Your task to perform on an android device: change text size in settings app Image 0: 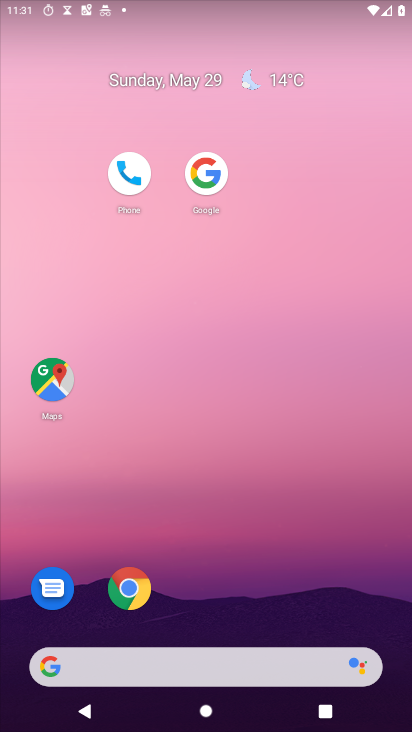
Step 0: drag from (259, 711) to (182, 152)
Your task to perform on an android device: change text size in settings app Image 1: 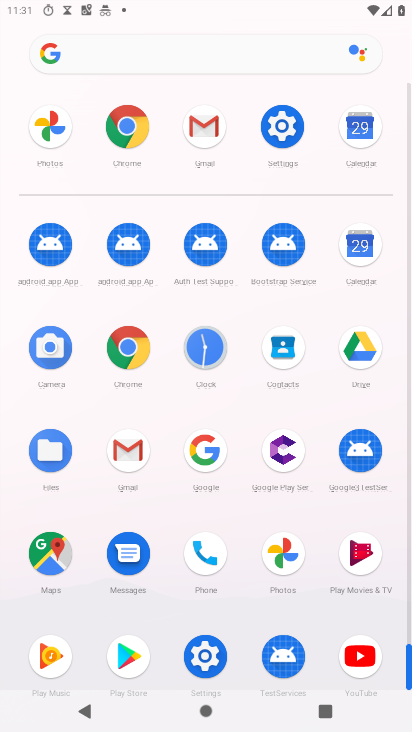
Step 1: click (270, 128)
Your task to perform on an android device: change text size in settings app Image 2: 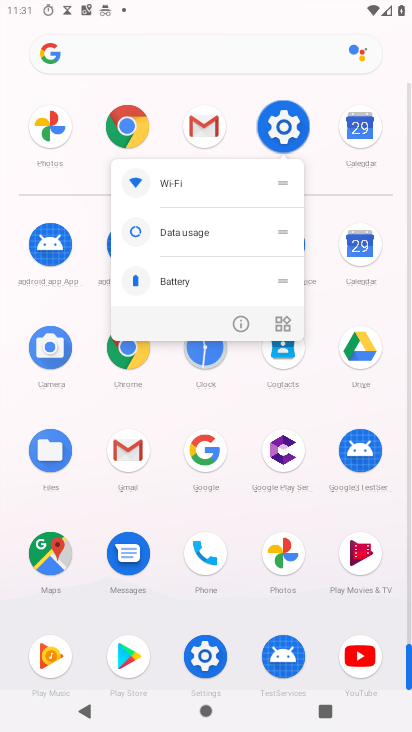
Step 2: click (270, 128)
Your task to perform on an android device: change text size in settings app Image 3: 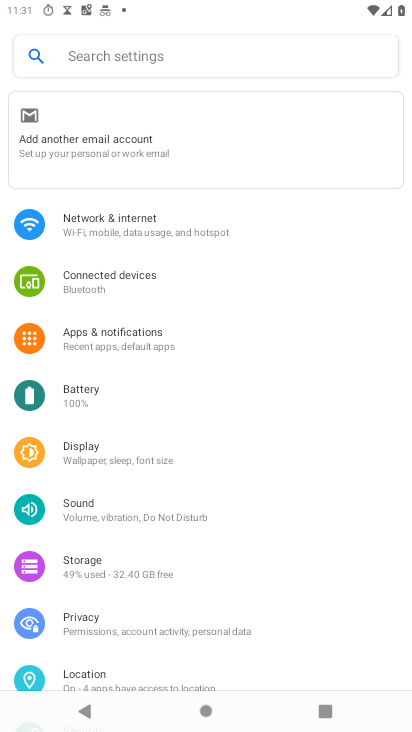
Step 3: click (86, 452)
Your task to perform on an android device: change text size in settings app Image 4: 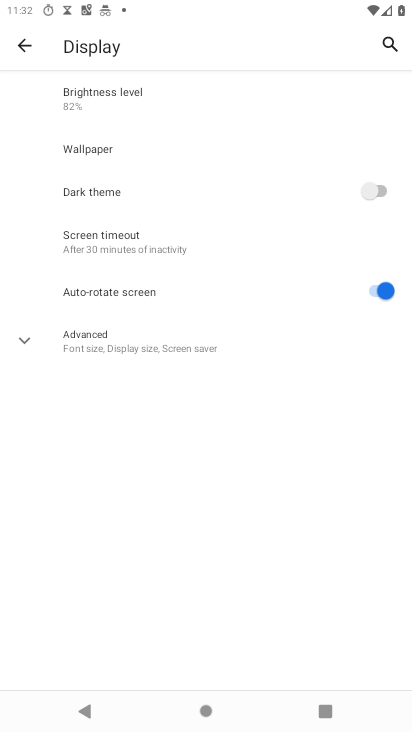
Step 4: click (88, 347)
Your task to perform on an android device: change text size in settings app Image 5: 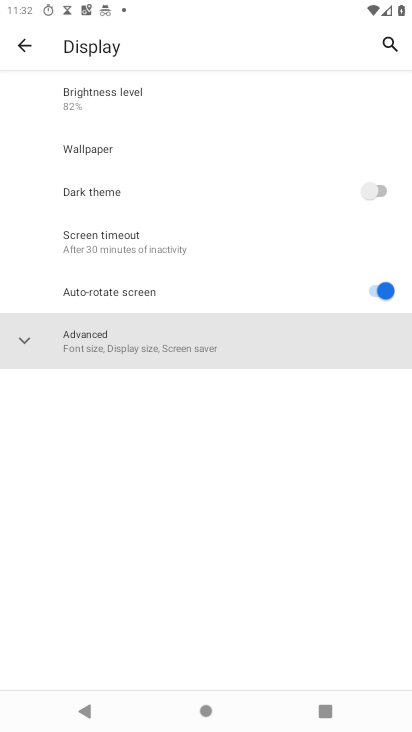
Step 5: click (93, 345)
Your task to perform on an android device: change text size in settings app Image 6: 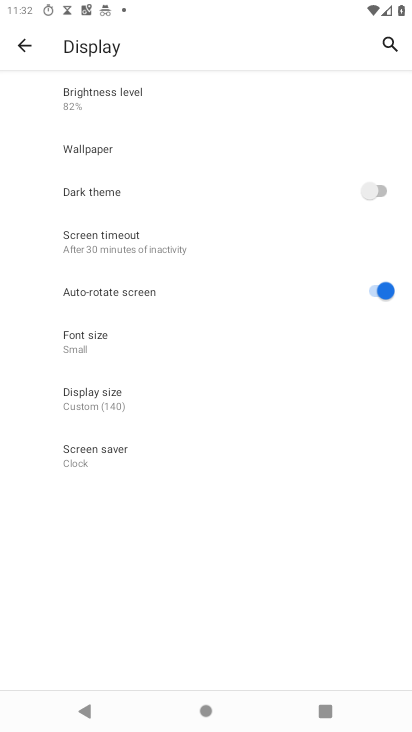
Step 6: click (93, 345)
Your task to perform on an android device: change text size in settings app Image 7: 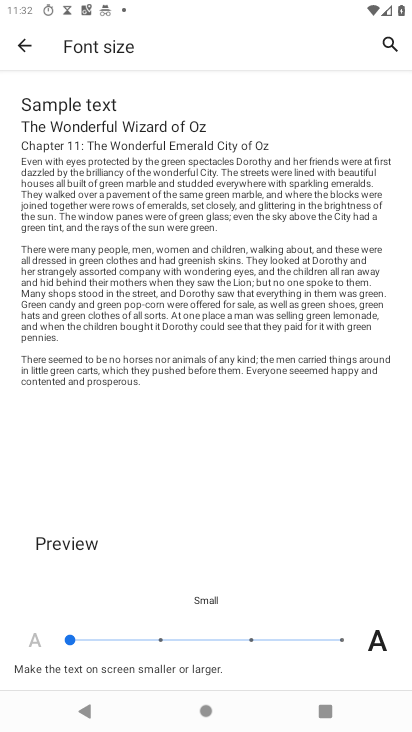
Step 7: click (158, 637)
Your task to perform on an android device: change text size in settings app Image 8: 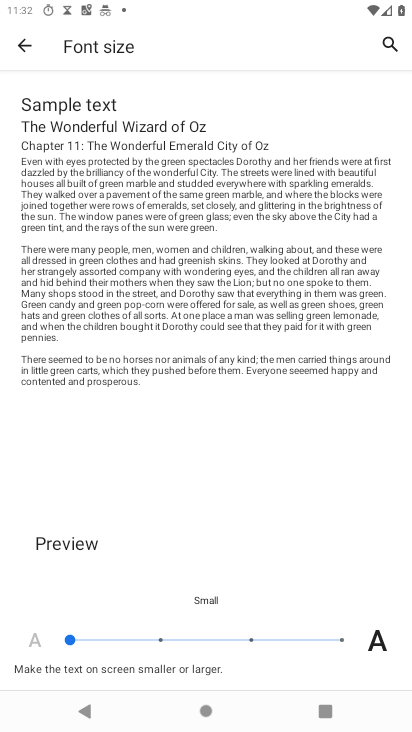
Step 8: click (163, 633)
Your task to perform on an android device: change text size in settings app Image 9: 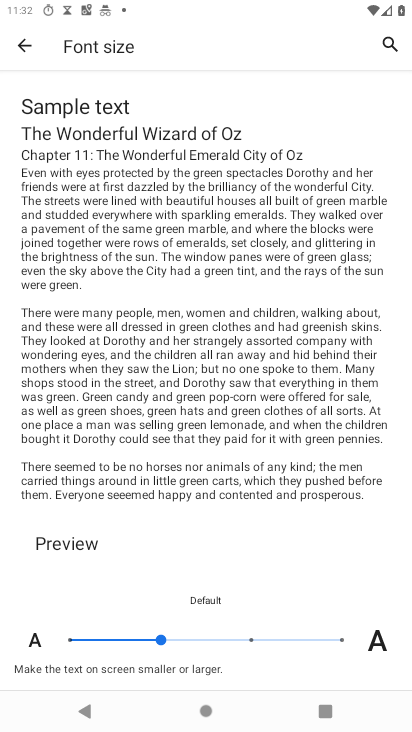
Step 9: click (166, 633)
Your task to perform on an android device: change text size in settings app Image 10: 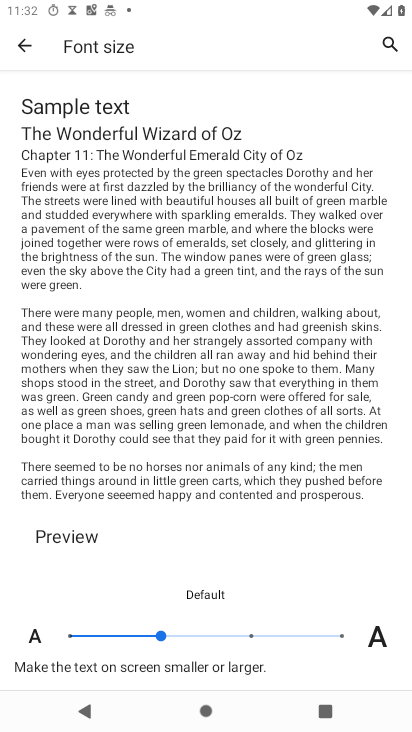
Step 10: task complete